Your task to perform on an android device: add a label to a message in the gmail app Image 0: 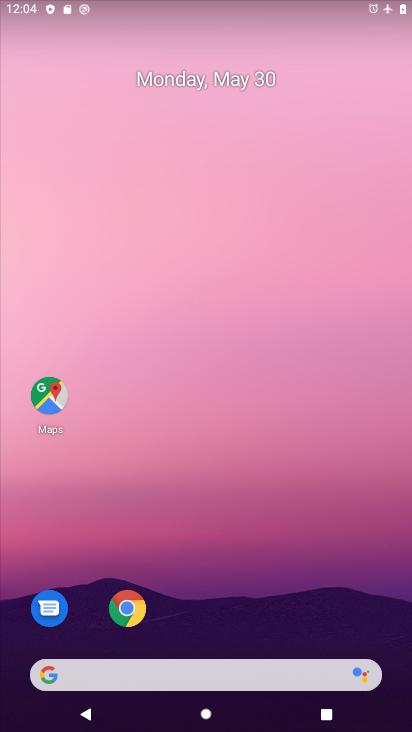
Step 0: drag from (225, 638) to (159, 58)
Your task to perform on an android device: add a label to a message in the gmail app Image 1: 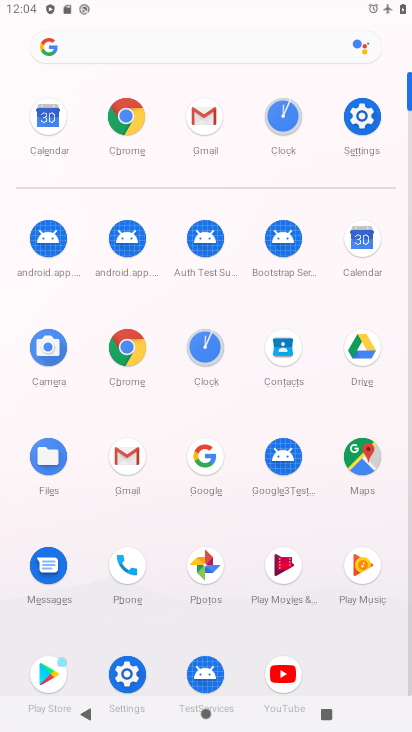
Step 1: click (122, 469)
Your task to perform on an android device: add a label to a message in the gmail app Image 2: 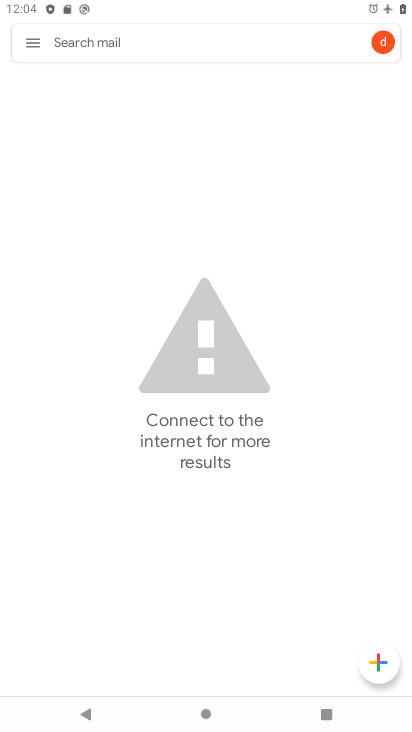
Step 2: click (29, 44)
Your task to perform on an android device: add a label to a message in the gmail app Image 3: 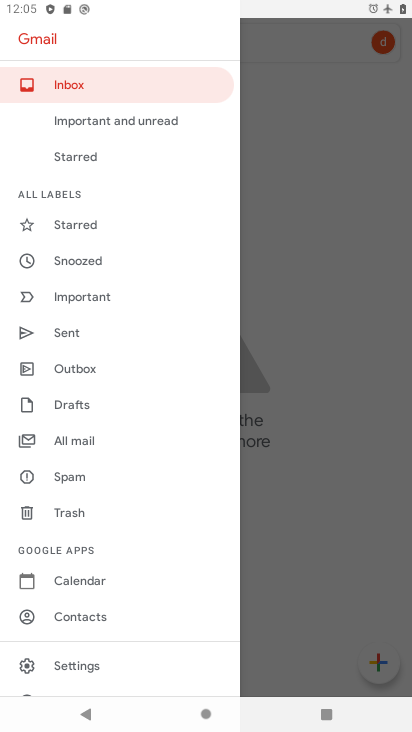
Step 3: click (76, 127)
Your task to perform on an android device: add a label to a message in the gmail app Image 4: 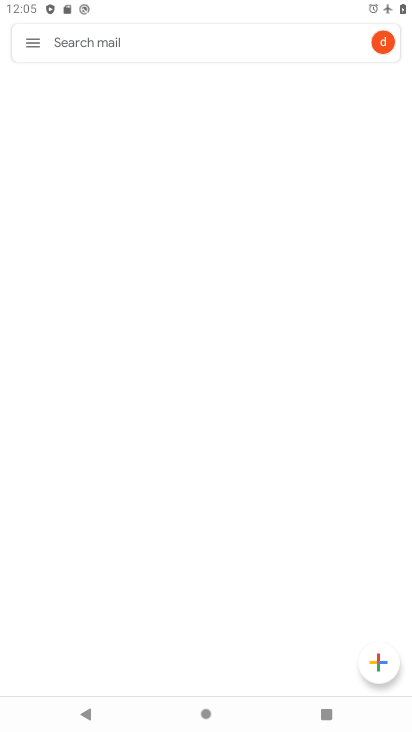
Step 4: task complete